Your task to perform on an android device: Show me productivity apps on the Play Store Image 0: 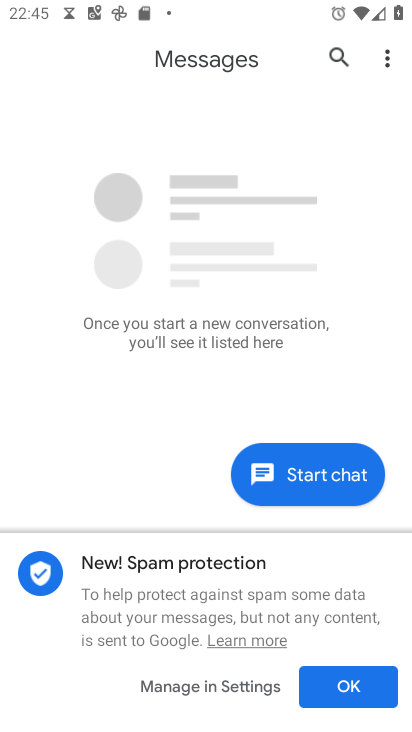
Step 0: press home button
Your task to perform on an android device: Show me productivity apps on the Play Store Image 1: 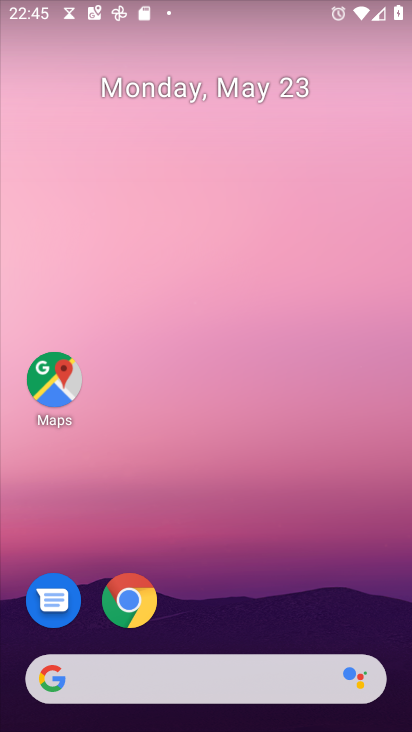
Step 1: drag from (202, 725) to (160, 52)
Your task to perform on an android device: Show me productivity apps on the Play Store Image 2: 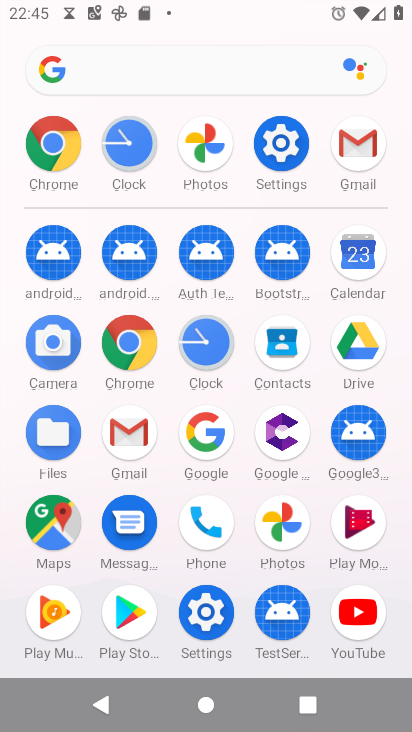
Step 2: click (130, 606)
Your task to perform on an android device: Show me productivity apps on the Play Store Image 3: 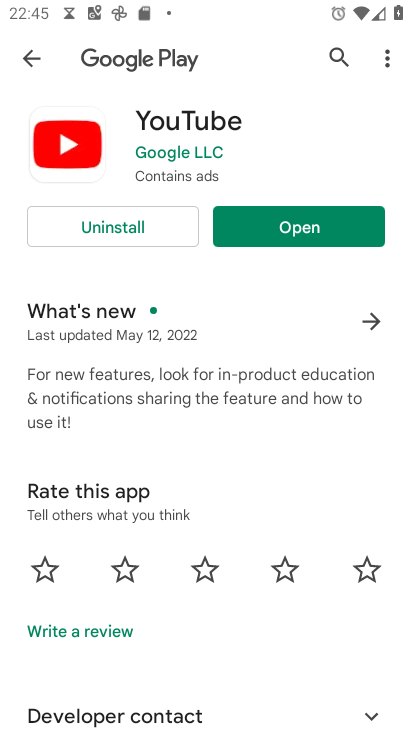
Step 3: click (29, 60)
Your task to perform on an android device: Show me productivity apps on the Play Store Image 4: 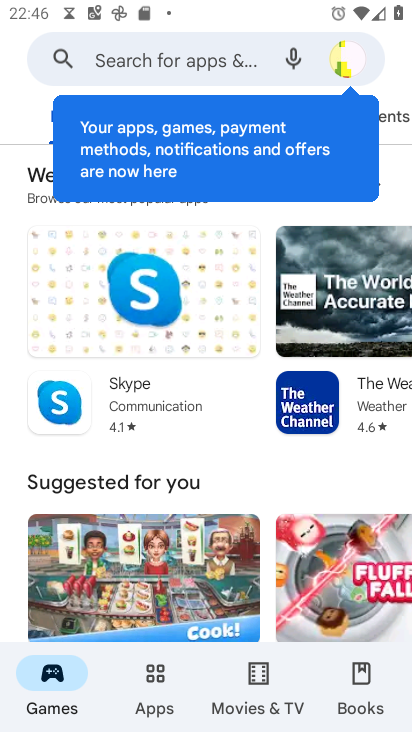
Step 4: click (150, 694)
Your task to perform on an android device: Show me productivity apps on the Play Store Image 5: 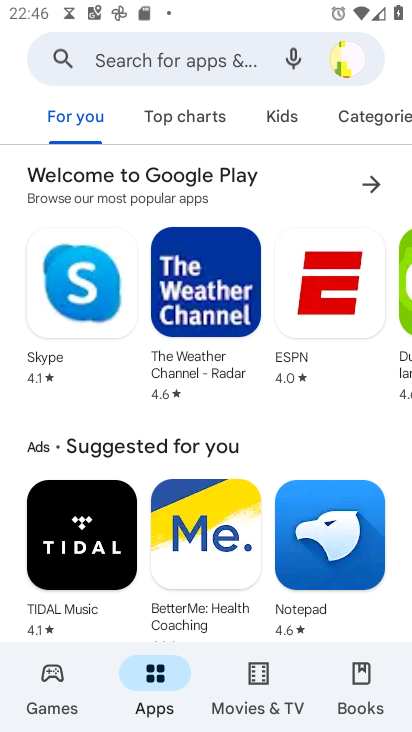
Step 5: click (359, 114)
Your task to perform on an android device: Show me productivity apps on the Play Store Image 6: 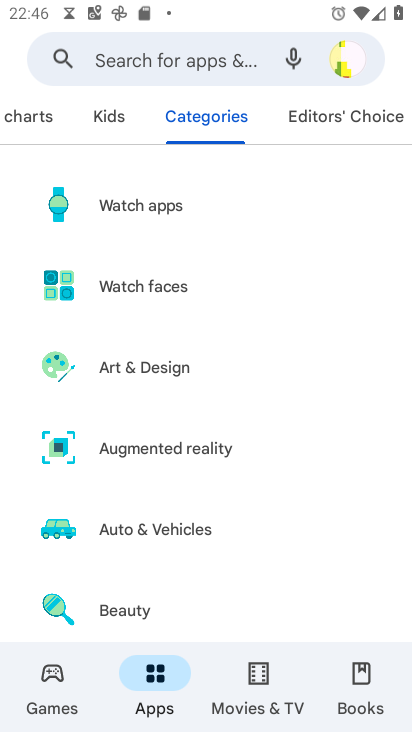
Step 6: drag from (170, 578) to (186, 209)
Your task to perform on an android device: Show me productivity apps on the Play Store Image 7: 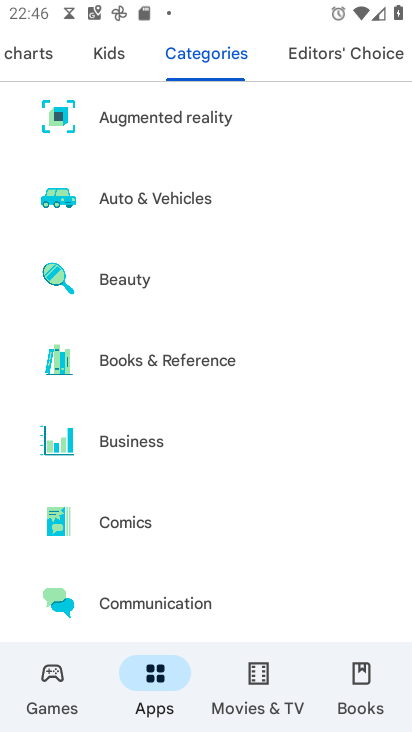
Step 7: drag from (179, 574) to (186, 251)
Your task to perform on an android device: Show me productivity apps on the Play Store Image 8: 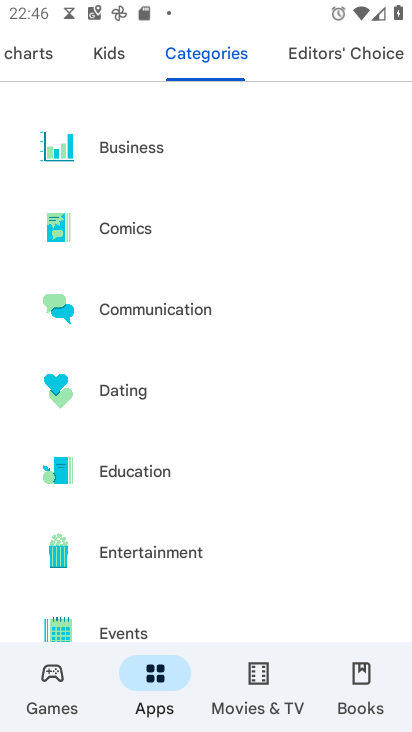
Step 8: drag from (164, 586) to (176, 150)
Your task to perform on an android device: Show me productivity apps on the Play Store Image 9: 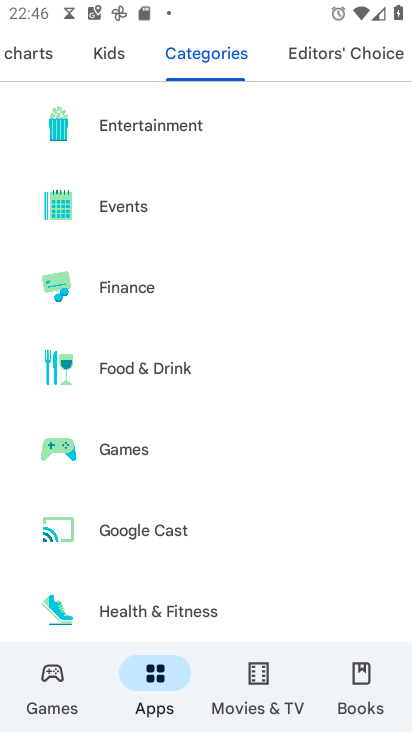
Step 9: drag from (181, 590) to (191, 201)
Your task to perform on an android device: Show me productivity apps on the Play Store Image 10: 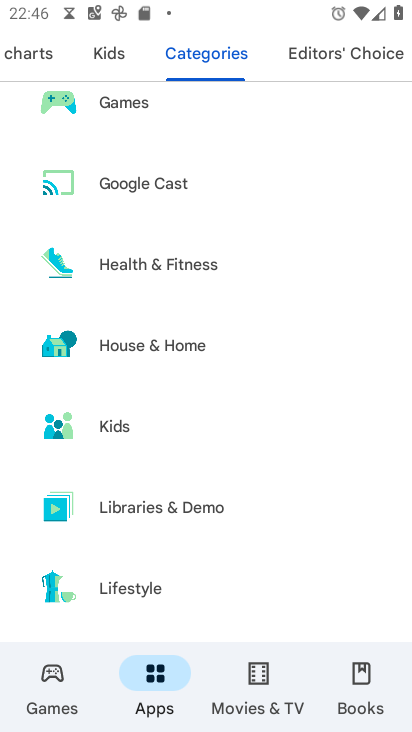
Step 10: drag from (184, 541) to (195, 171)
Your task to perform on an android device: Show me productivity apps on the Play Store Image 11: 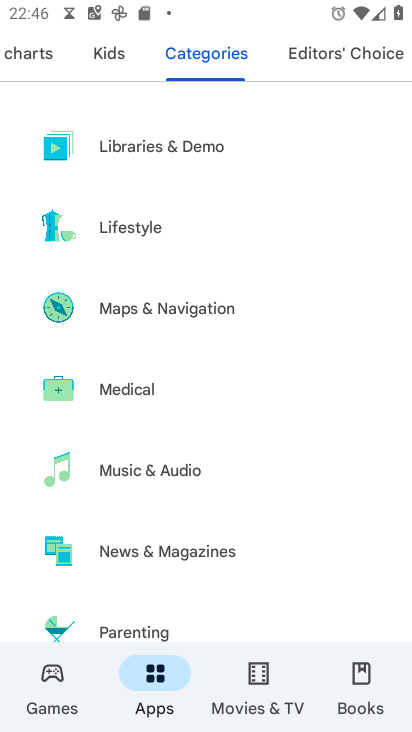
Step 11: drag from (190, 609) to (201, 170)
Your task to perform on an android device: Show me productivity apps on the Play Store Image 12: 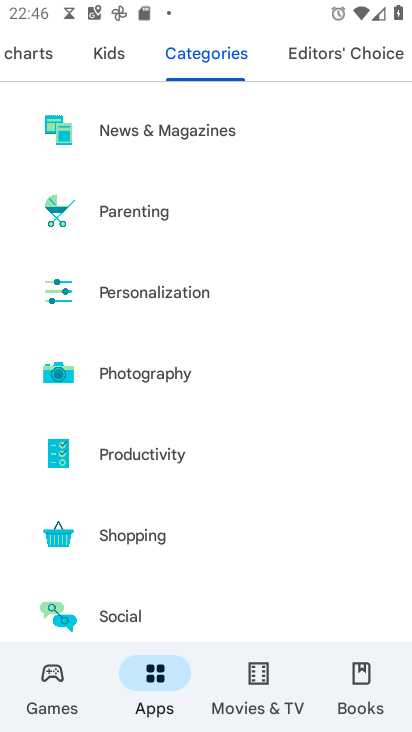
Step 12: click (140, 456)
Your task to perform on an android device: Show me productivity apps on the Play Store Image 13: 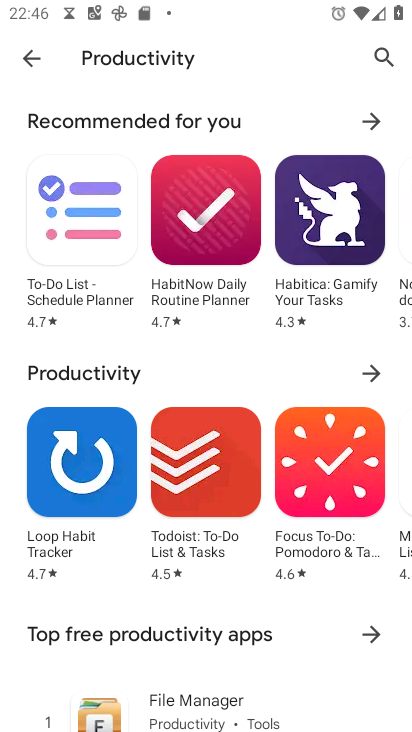
Step 13: task complete